Your task to perform on an android device: Open display settings Image 0: 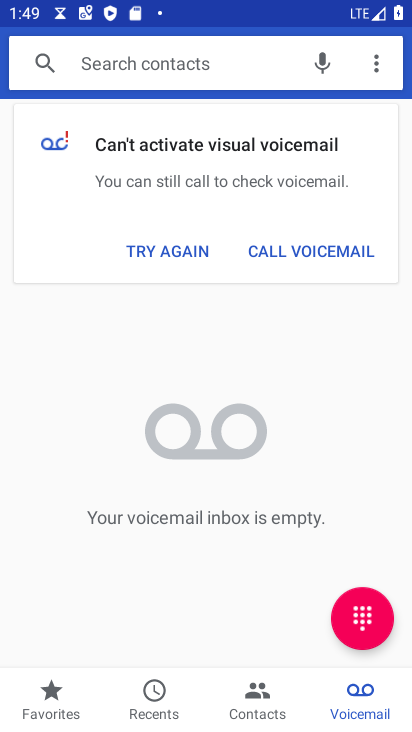
Step 0: press home button
Your task to perform on an android device: Open display settings Image 1: 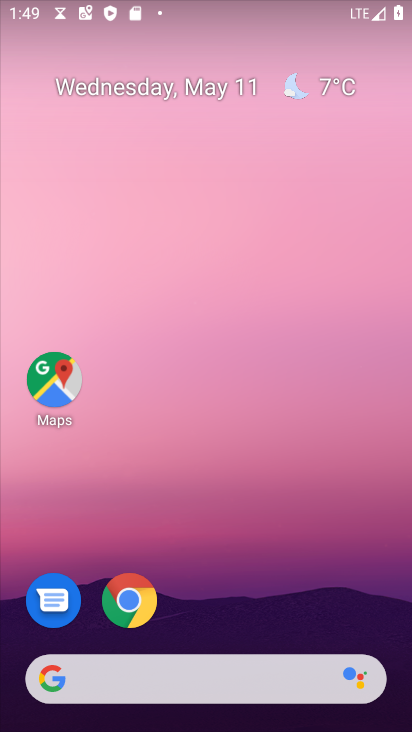
Step 1: drag from (260, 593) to (205, 155)
Your task to perform on an android device: Open display settings Image 2: 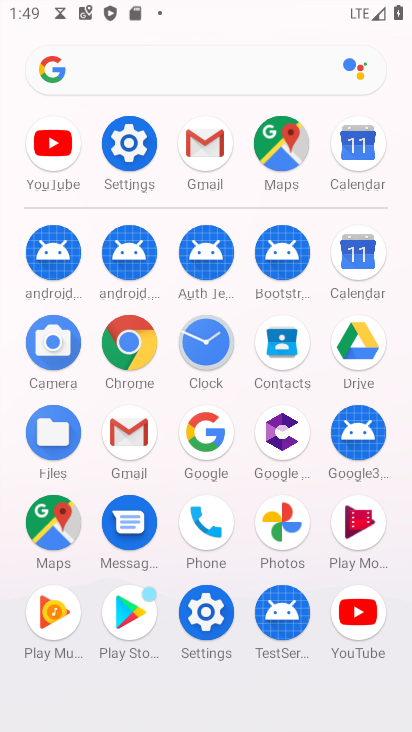
Step 2: click (123, 144)
Your task to perform on an android device: Open display settings Image 3: 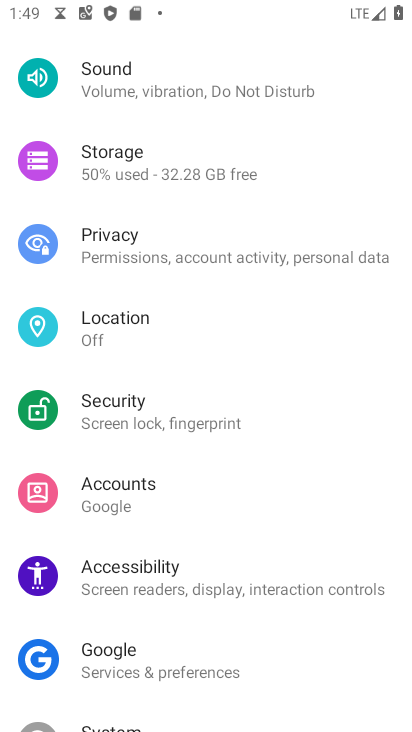
Step 3: drag from (227, 165) to (214, 579)
Your task to perform on an android device: Open display settings Image 4: 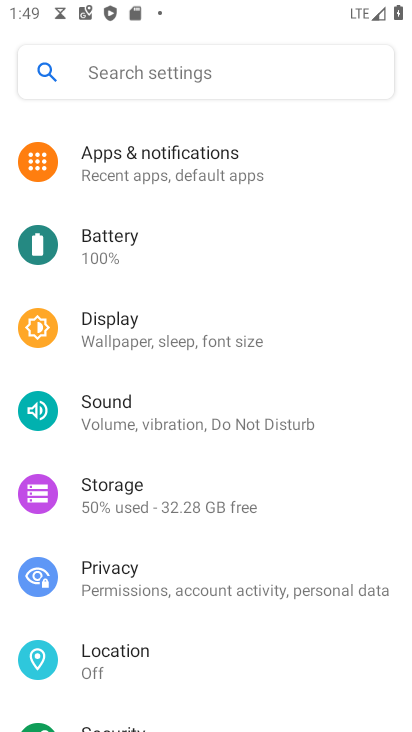
Step 4: click (179, 314)
Your task to perform on an android device: Open display settings Image 5: 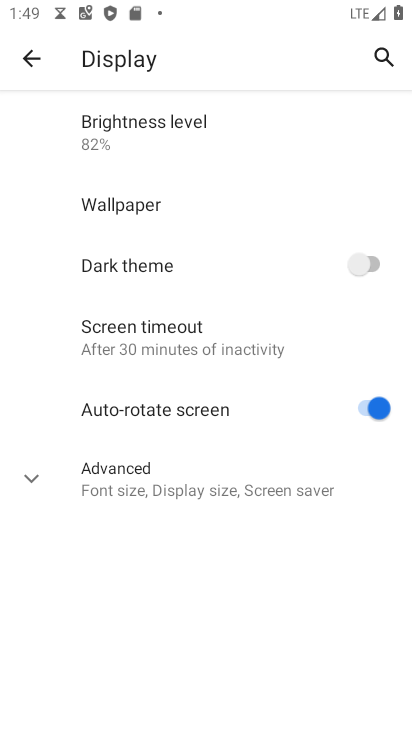
Step 5: task complete